Your task to perform on an android device: Show me the alarms in the clock app Image 0: 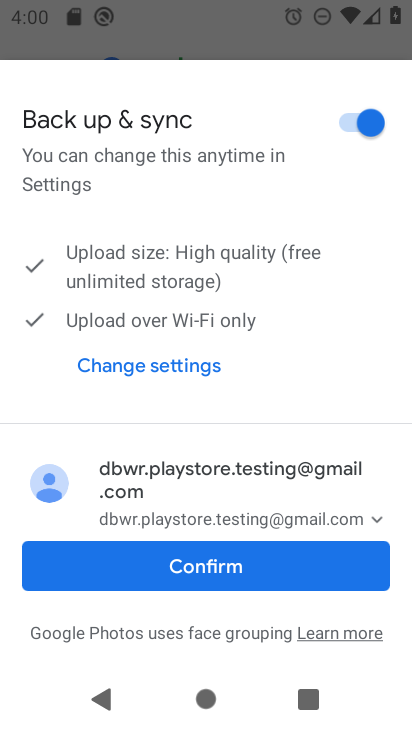
Step 0: press home button
Your task to perform on an android device: Show me the alarms in the clock app Image 1: 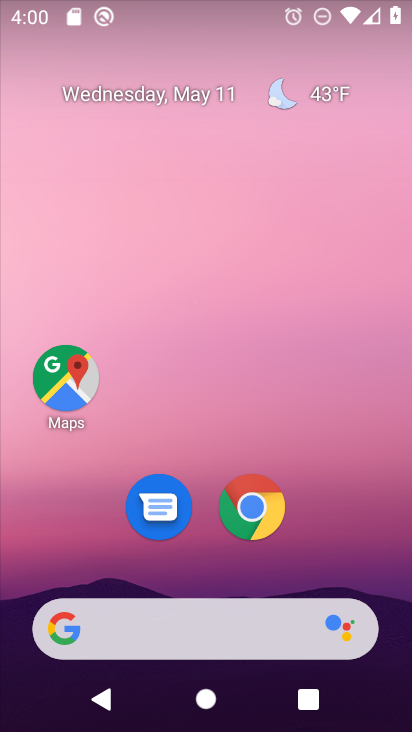
Step 1: drag from (397, 624) to (322, 119)
Your task to perform on an android device: Show me the alarms in the clock app Image 2: 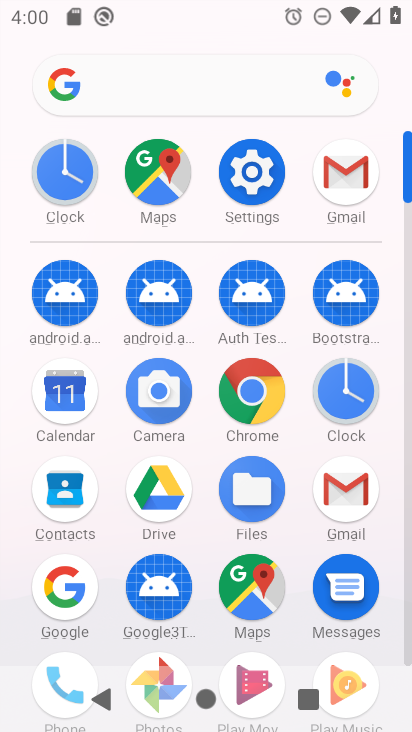
Step 2: click (406, 654)
Your task to perform on an android device: Show me the alarms in the clock app Image 3: 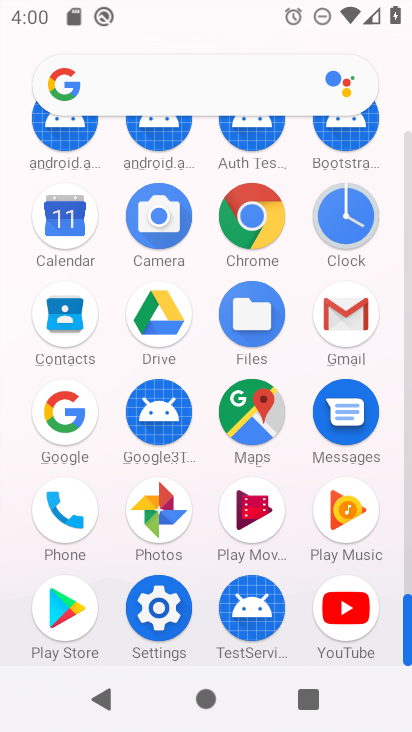
Step 3: click (345, 216)
Your task to perform on an android device: Show me the alarms in the clock app Image 4: 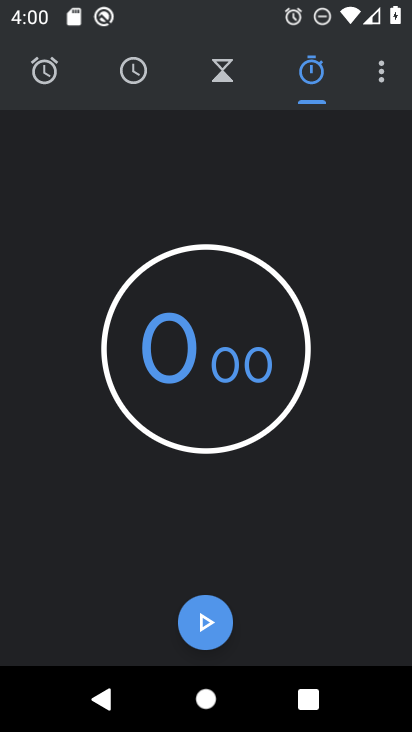
Step 4: click (45, 70)
Your task to perform on an android device: Show me the alarms in the clock app Image 5: 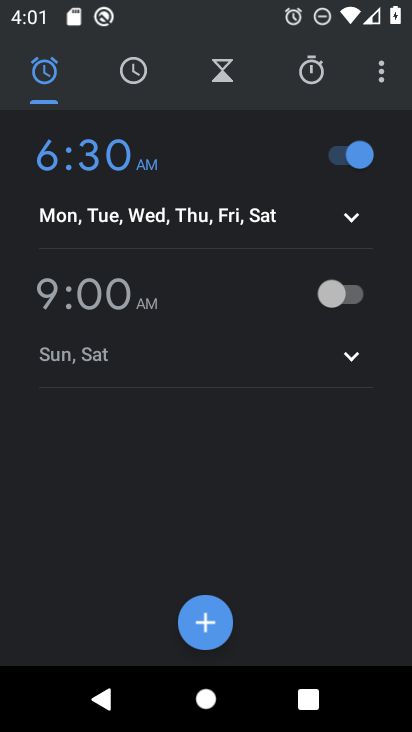
Step 5: task complete